Your task to perform on an android device: turn off translation in the chrome app Image 0: 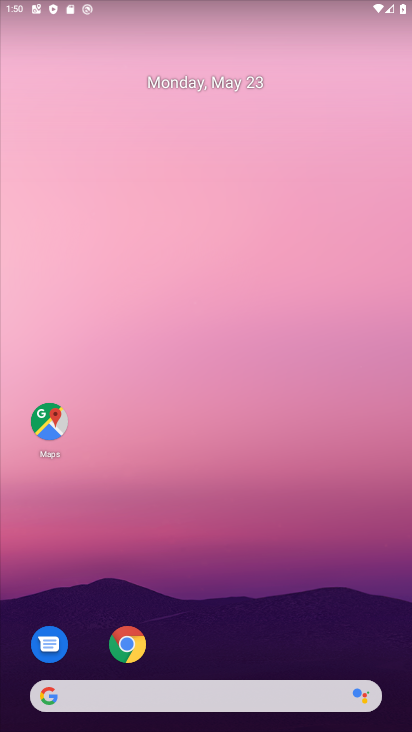
Step 0: drag from (247, 490) to (242, 13)
Your task to perform on an android device: turn off translation in the chrome app Image 1: 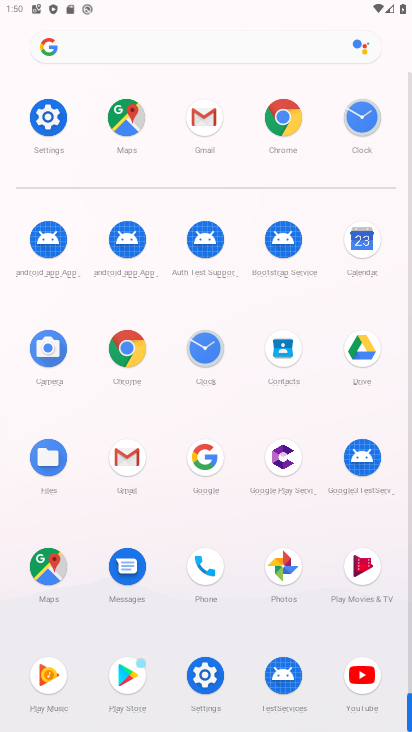
Step 1: drag from (10, 579) to (5, 197)
Your task to perform on an android device: turn off translation in the chrome app Image 2: 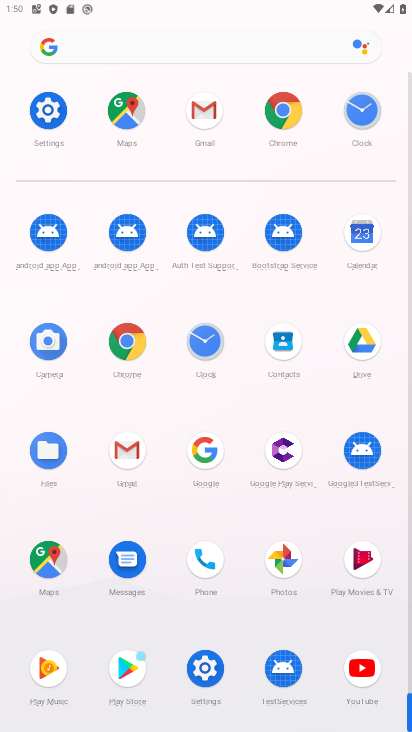
Step 2: click (125, 340)
Your task to perform on an android device: turn off translation in the chrome app Image 3: 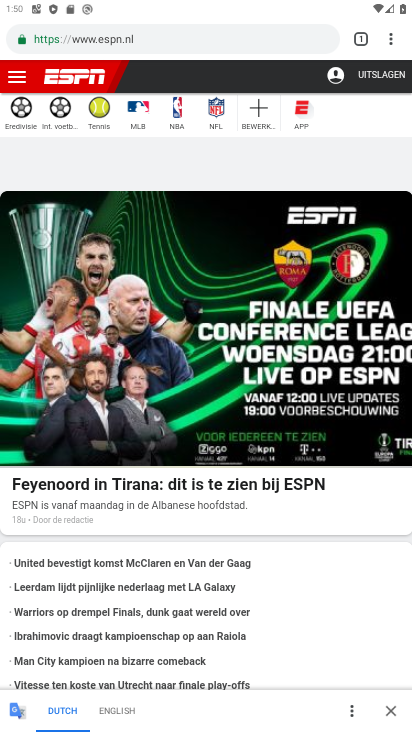
Step 3: drag from (389, 38) to (258, 467)
Your task to perform on an android device: turn off translation in the chrome app Image 4: 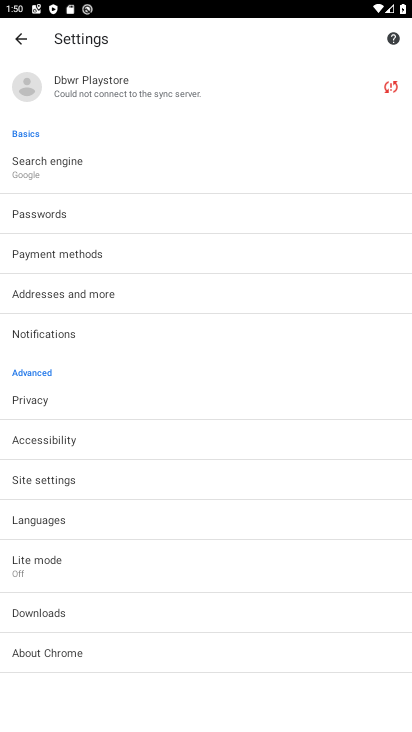
Step 4: drag from (150, 614) to (184, 167)
Your task to perform on an android device: turn off translation in the chrome app Image 5: 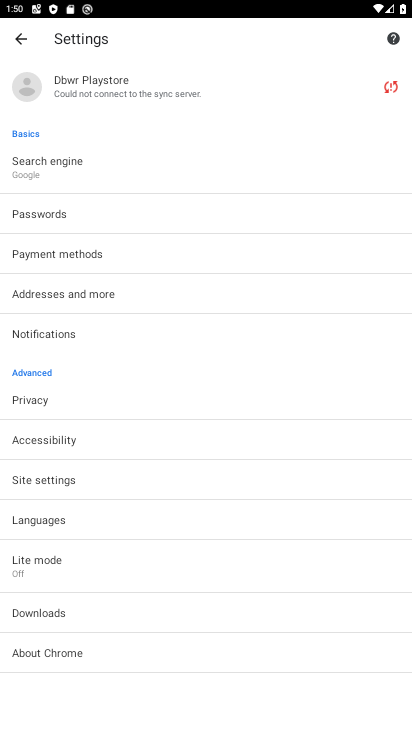
Step 5: click (56, 519)
Your task to perform on an android device: turn off translation in the chrome app Image 6: 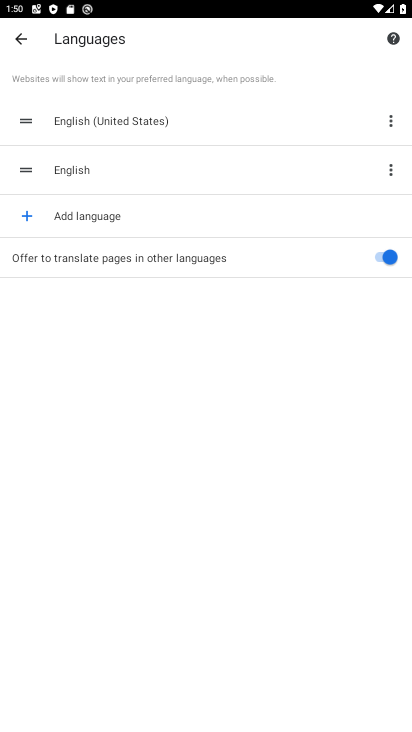
Step 6: click (386, 253)
Your task to perform on an android device: turn off translation in the chrome app Image 7: 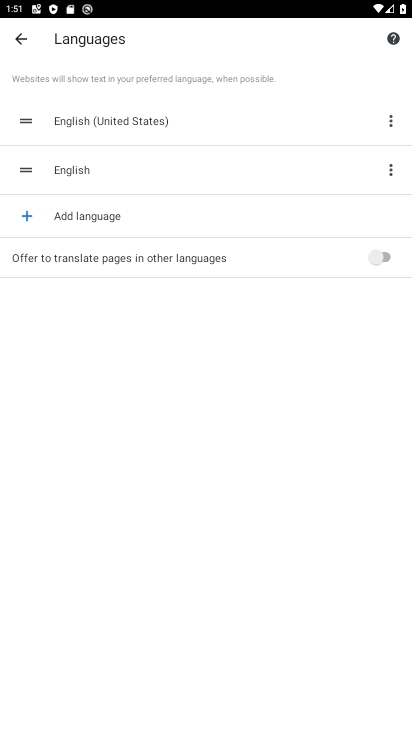
Step 7: task complete